Your task to perform on an android device: create a new album in the google photos Image 0: 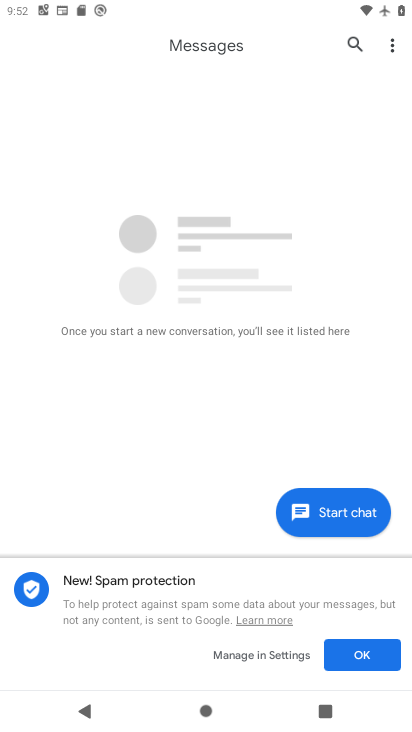
Step 0: press home button
Your task to perform on an android device: create a new album in the google photos Image 1: 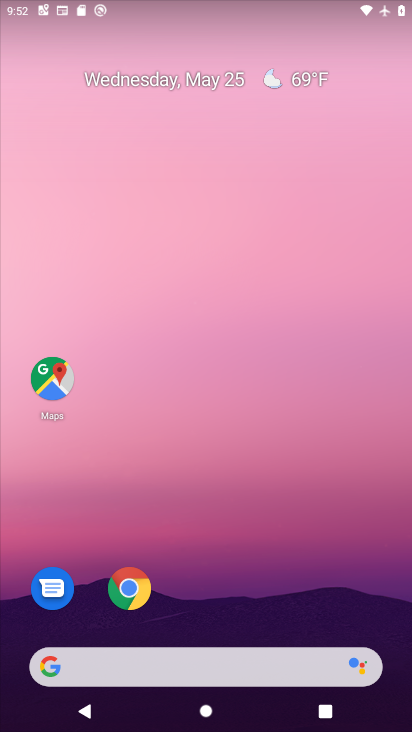
Step 1: drag from (378, 581) to (349, 106)
Your task to perform on an android device: create a new album in the google photos Image 2: 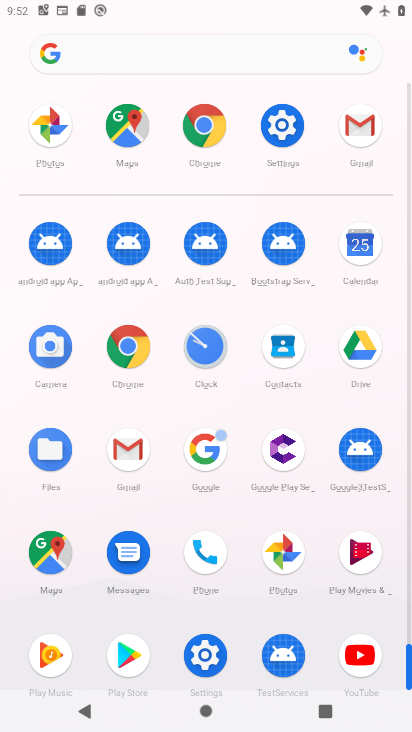
Step 2: click (283, 560)
Your task to perform on an android device: create a new album in the google photos Image 3: 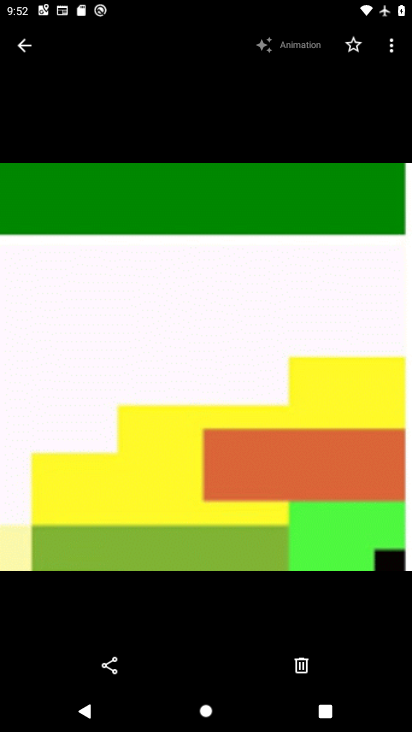
Step 3: click (29, 49)
Your task to perform on an android device: create a new album in the google photos Image 4: 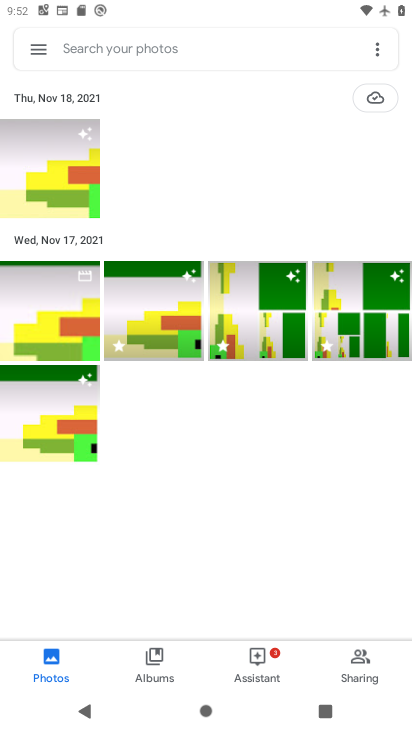
Step 4: click (380, 48)
Your task to perform on an android device: create a new album in the google photos Image 5: 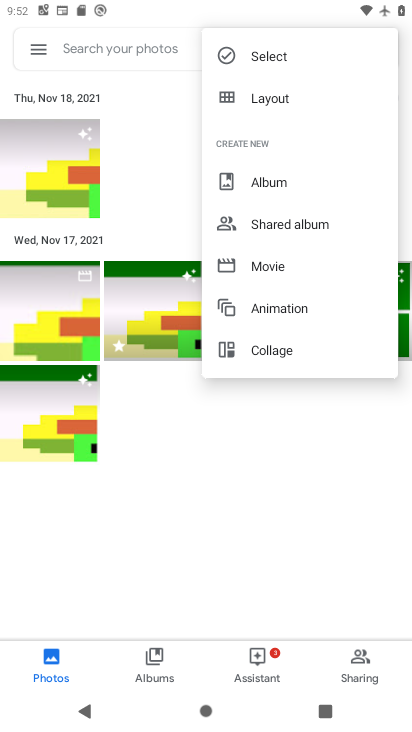
Step 5: click (288, 180)
Your task to perform on an android device: create a new album in the google photos Image 6: 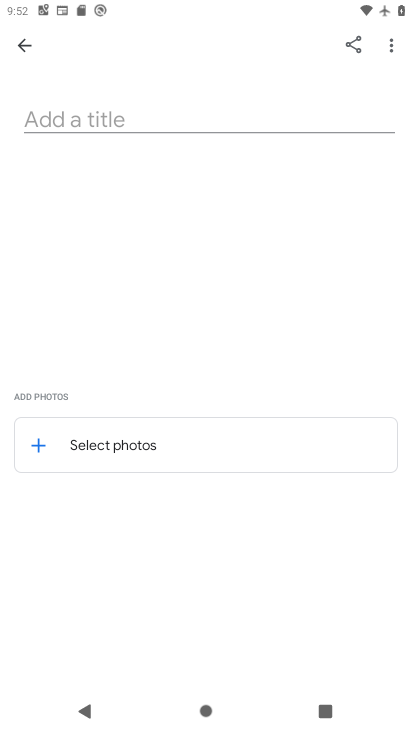
Step 6: click (201, 114)
Your task to perform on an android device: create a new album in the google photos Image 7: 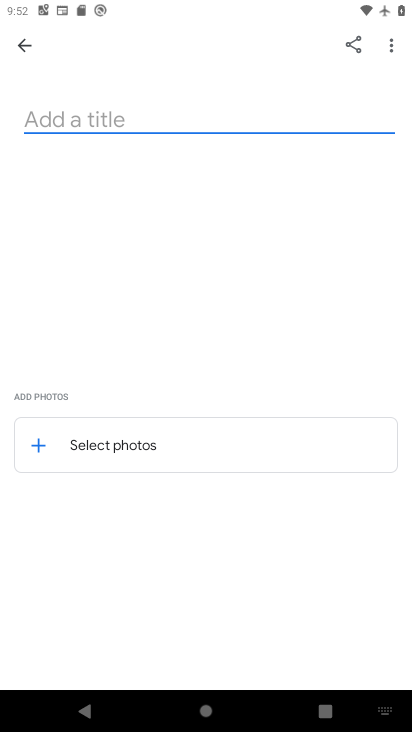
Step 7: type "fav"
Your task to perform on an android device: create a new album in the google photos Image 8: 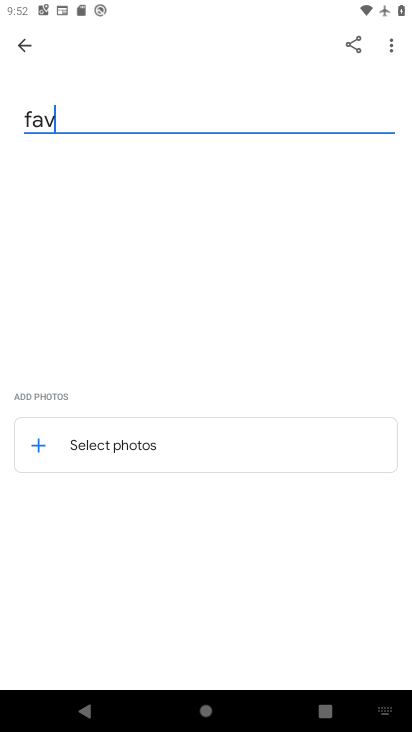
Step 8: click (107, 450)
Your task to perform on an android device: create a new album in the google photos Image 9: 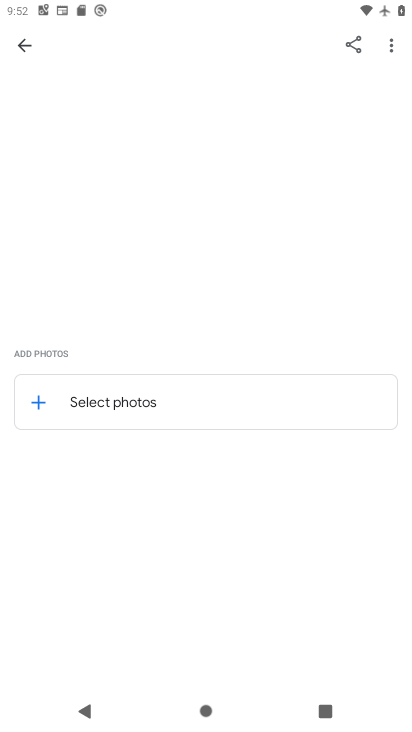
Step 9: click (68, 385)
Your task to perform on an android device: create a new album in the google photos Image 10: 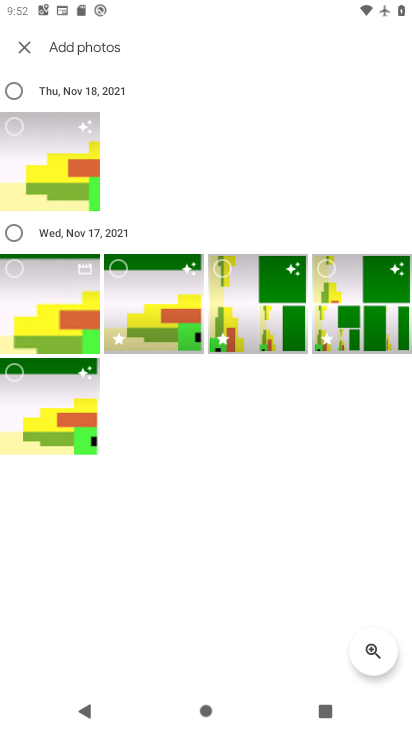
Step 10: click (50, 188)
Your task to perform on an android device: create a new album in the google photos Image 11: 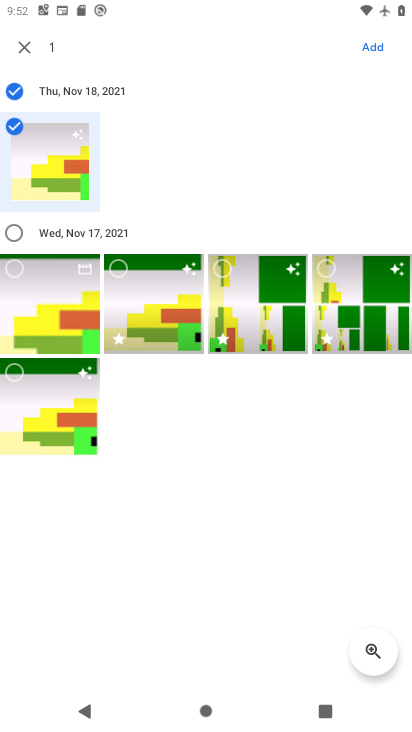
Step 11: click (376, 52)
Your task to perform on an android device: create a new album in the google photos Image 12: 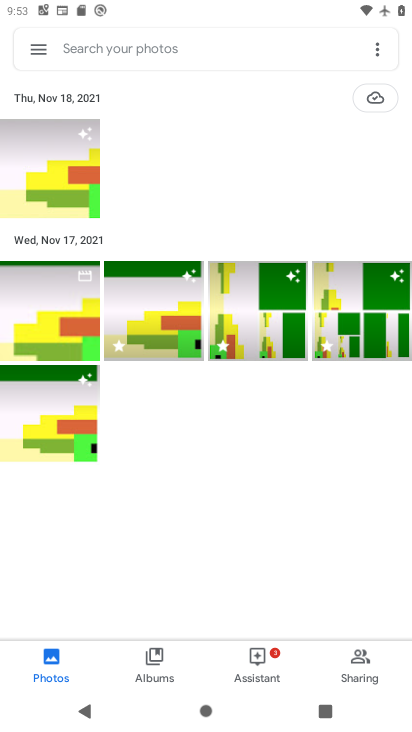
Step 12: task complete